Your task to perform on an android device: turn on improve location accuracy Image 0: 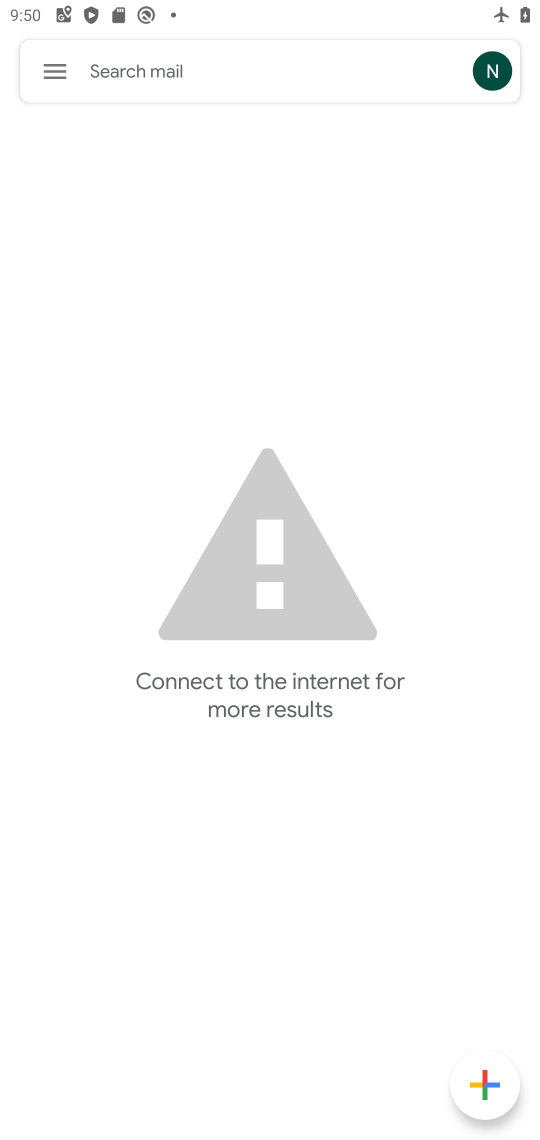
Step 0: press back button
Your task to perform on an android device: turn on improve location accuracy Image 1: 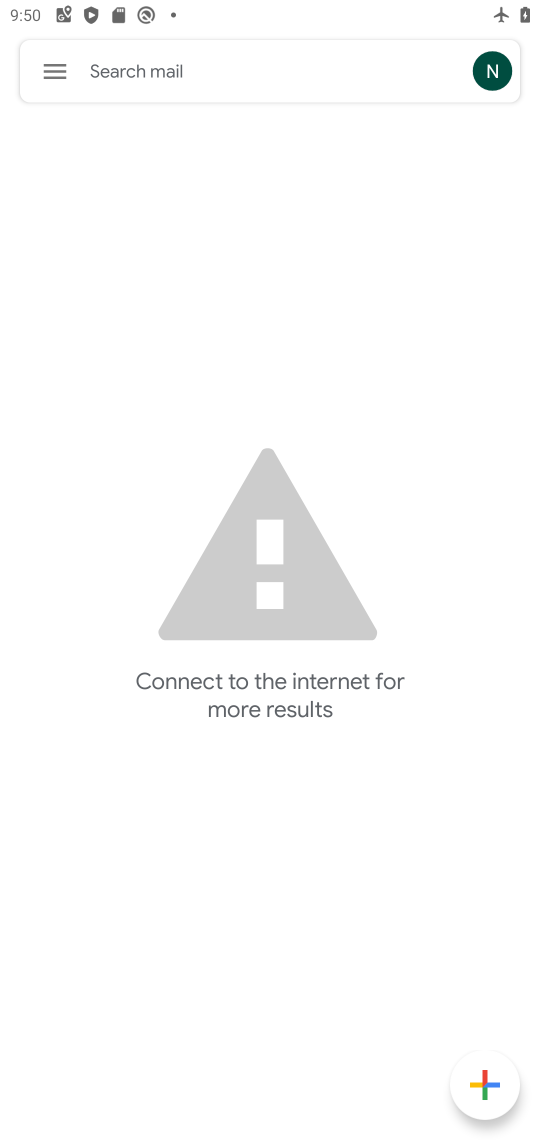
Step 1: press home button
Your task to perform on an android device: turn on improve location accuracy Image 2: 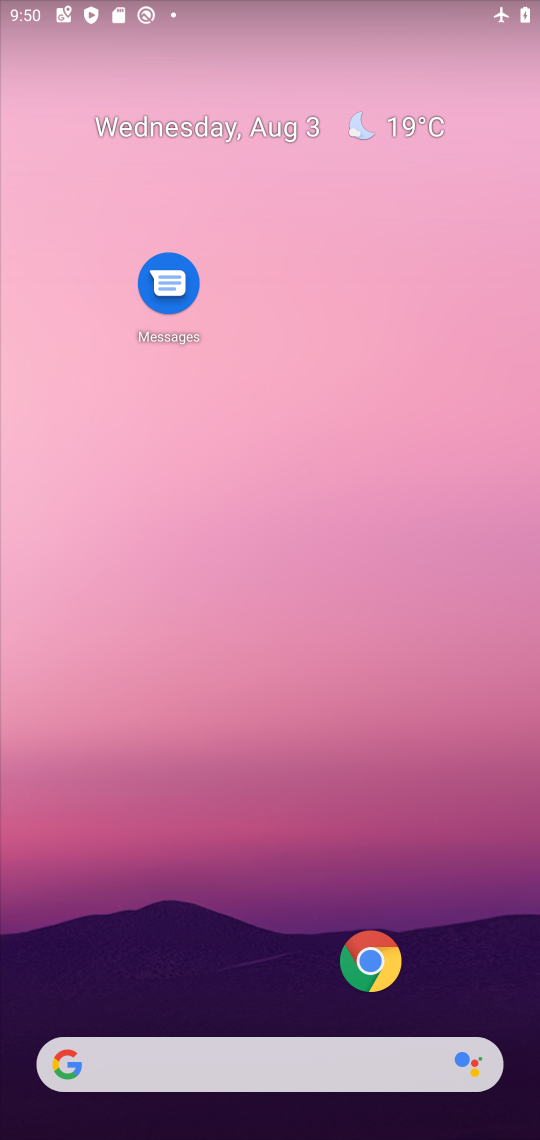
Step 2: drag from (288, 1047) to (158, 132)
Your task to perform on an android device: turn on improve location accuracy Image 3: 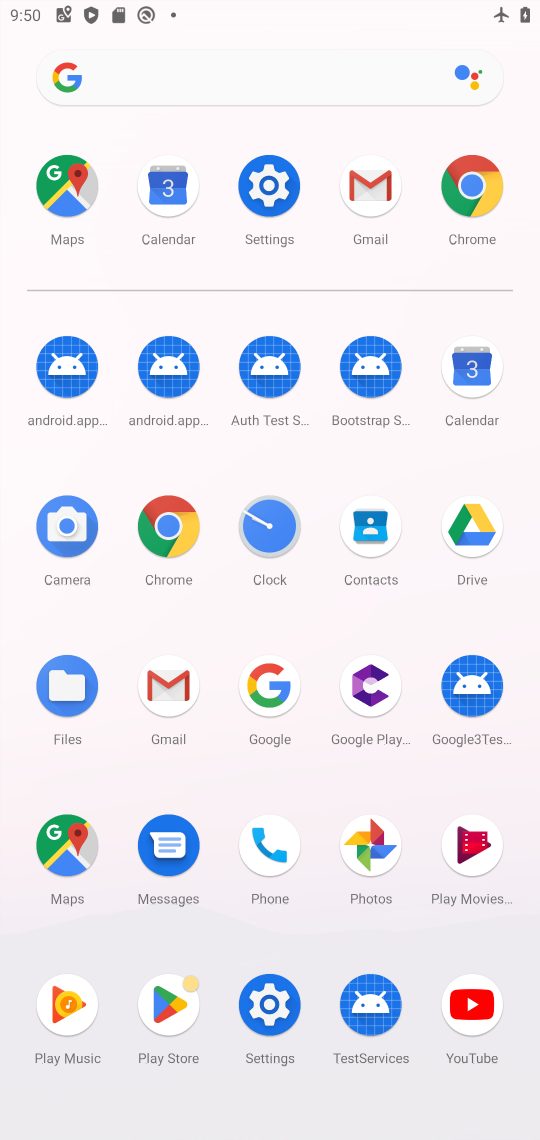
Step 3: click (273, 204)
Your task to perform on an android device: turn on improve location accuracy Image 4: 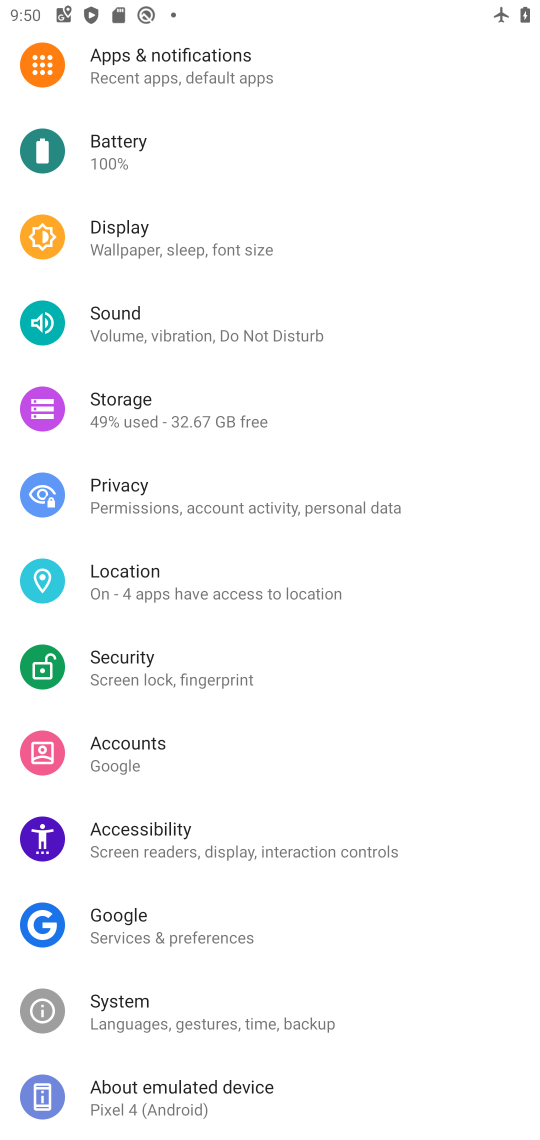
Step 4: click (98, 597)
Your task to perform on an android device: turn on improve location accuracy Image 5: 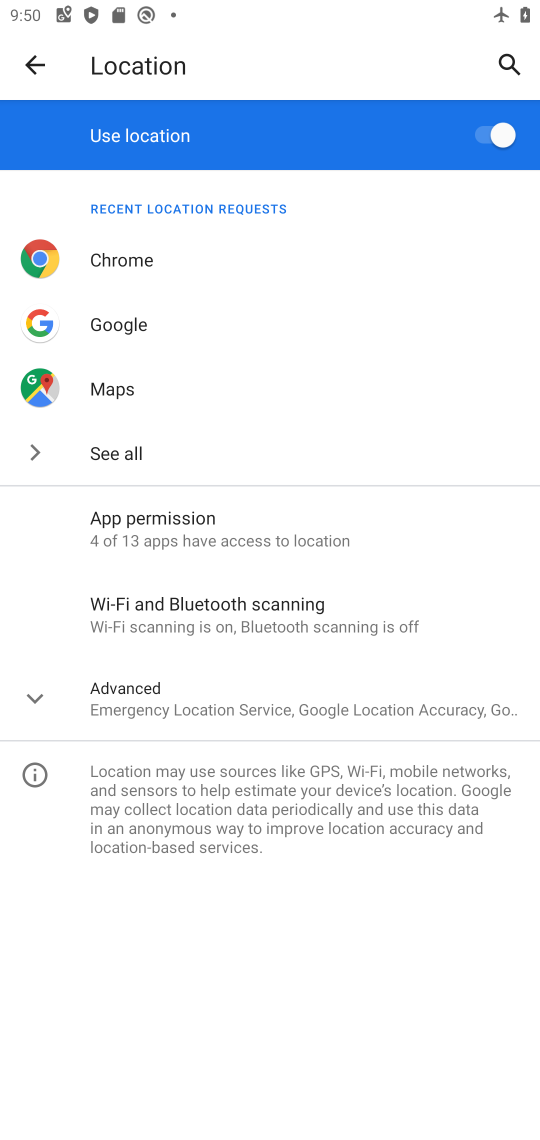
Step 5: click (196, 706)
Your task to perform on an android device: turn on improve location accuracy Image 6: 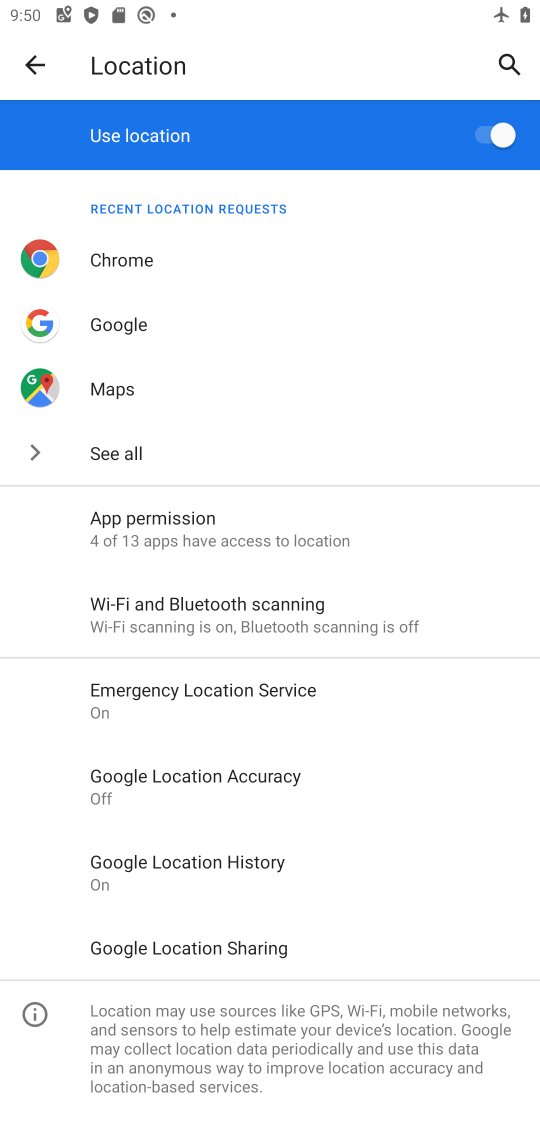
Step 6: click (200, 789)
Your task to perform on an android device: turn on improve location accuracy Image 7: 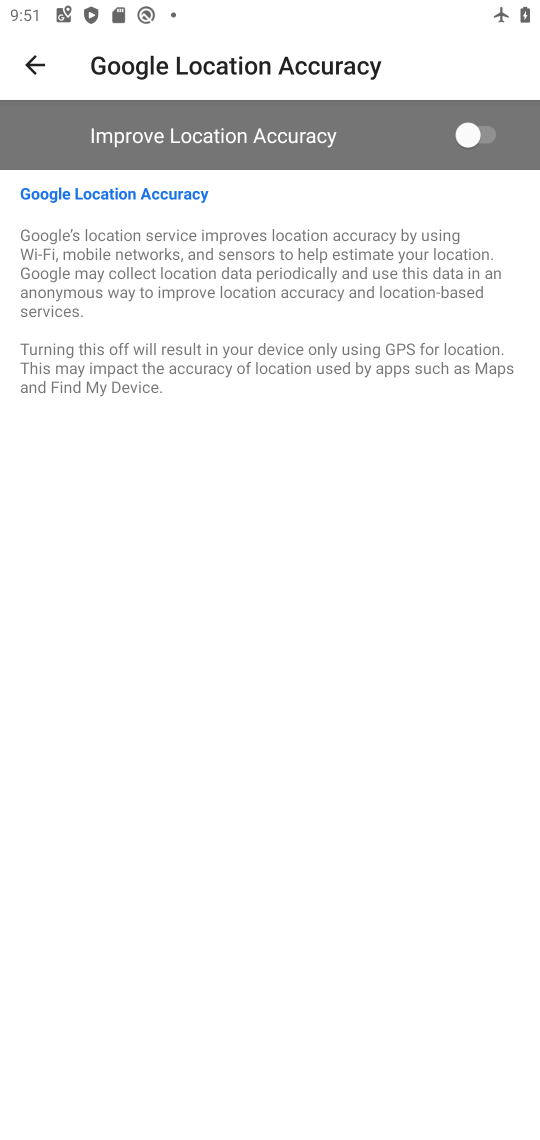
Step 7: click (477, 135)
Your task to perform on an android device: turn on improve location accuracy Image 8: 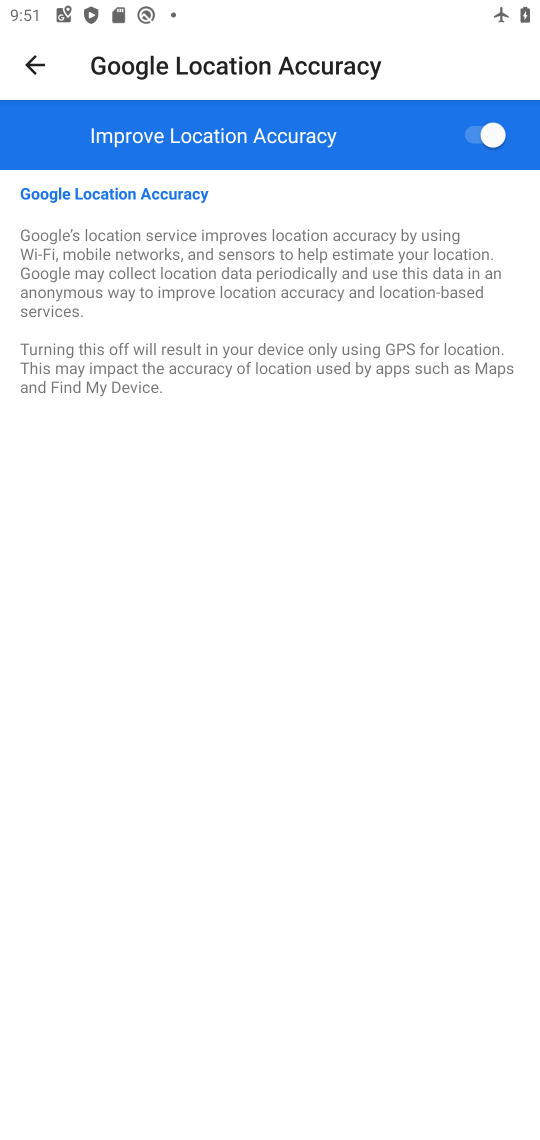
Step 8: task complete